Your task to perform on an android device: Open internet settings Image 0: 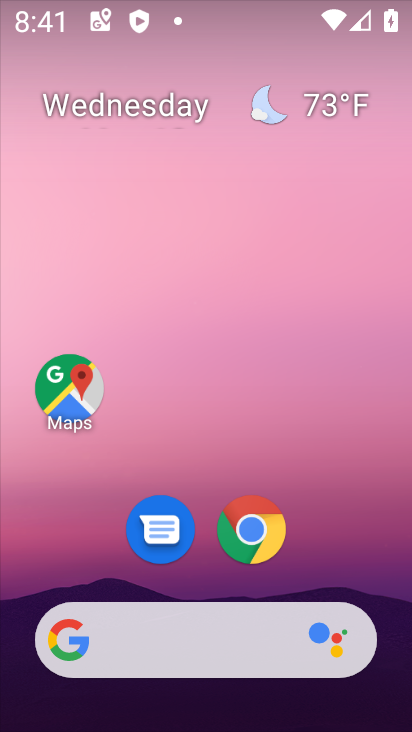
Step 0: drag from (348, 546) to (340, 178)
Your task to perform on an android device: Open internet settings Image 1: 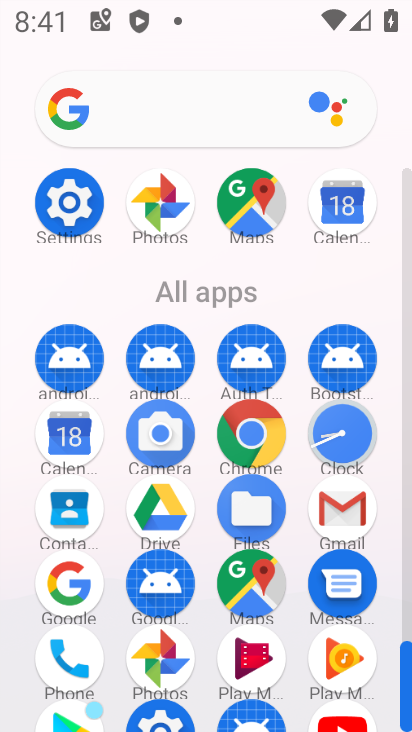
Step 1: click (75, 224)
Your task to perform on an android device: Open internet settings Image 2: 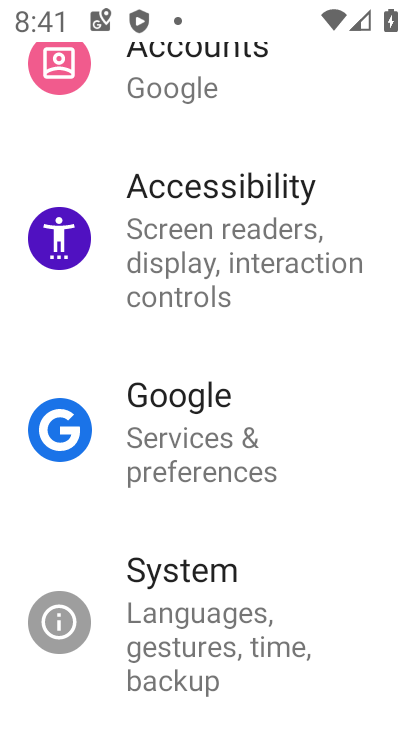
Step 2: drag from (343, 568) to (333, 431)
Your task to perform on an android device: Open internet settings Image 3: 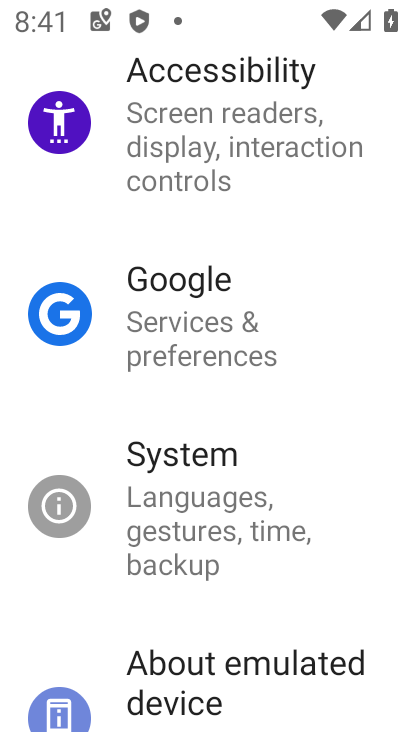
Step 3: drag from (336, 581) to (334, 433)
Your task to perform on an android device: Open internet settings Image 4: 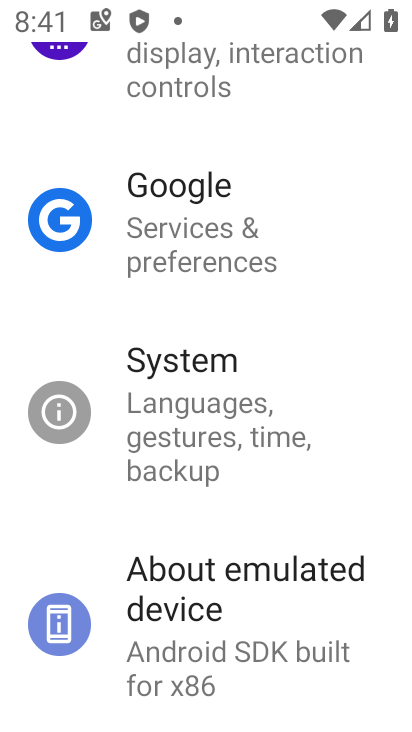
Step 4: drag from (352, 333) to (349, 465)
Your task to perform on an android device: Open internet settings Image 5: 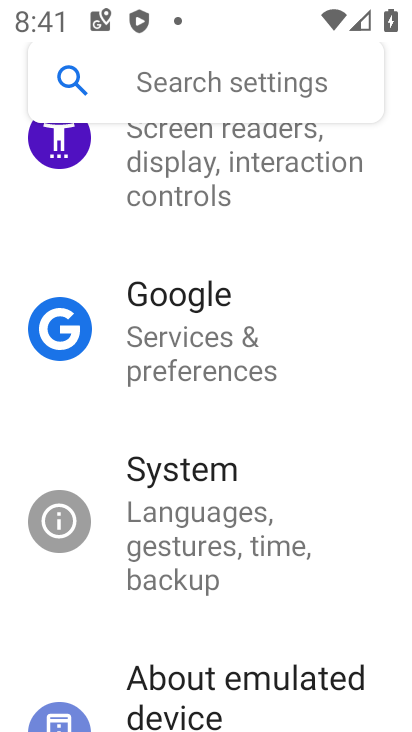
Step 5: drag from (345, 282) to (347, 397)
Your task to perform on an android device: Open internet settings Image 6: 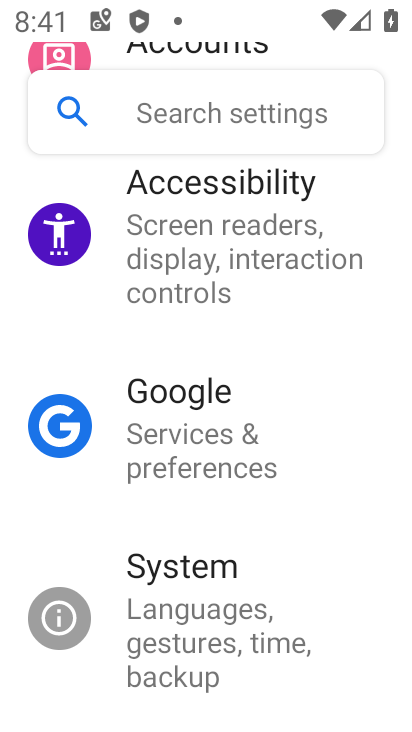
Step 6: drag from (350, 343) to (337, 449)
Your task to perform on an android device: Open internet settings Image 7: 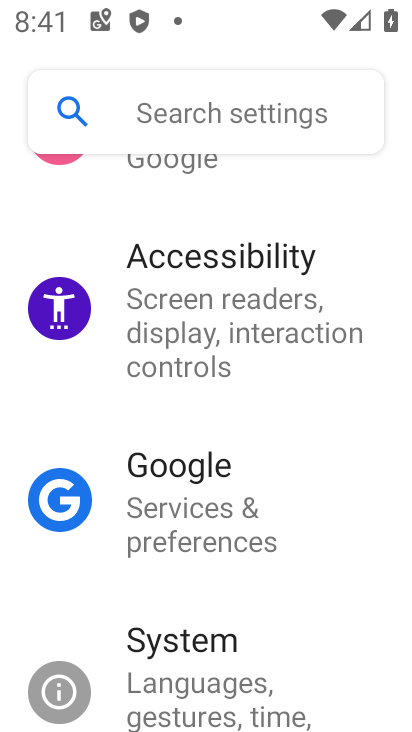
Step 7: drag from (348, 251) to (354, 387)
Your task to perform on an android device: Open internet settings Image 8: 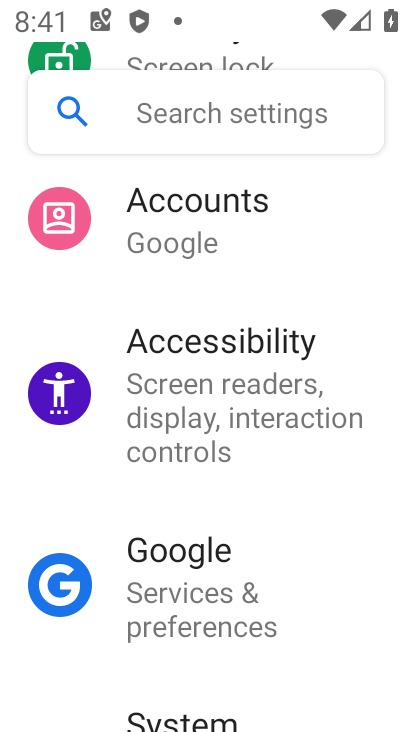
Step 8: drag from (362, 257) to (360, 384)
Your task to perform on an android device: Open internet settings Image 9: 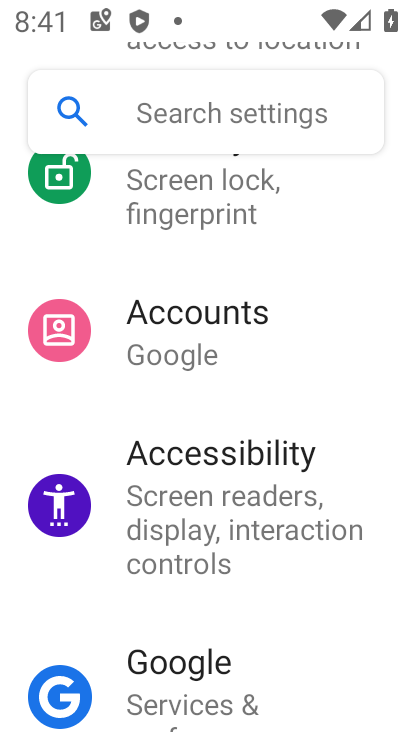
Step 9: drag from (366, 282) to (356, 444)
Your task to perform on an android device: Open internet settings Image 10: 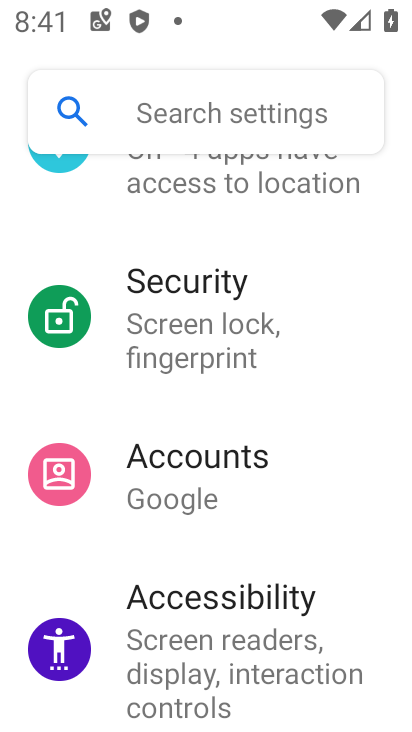
Step 10: drag from (347, 299) to (346, 381)
Your task to perform on an android device: Open internet settings Image 11: 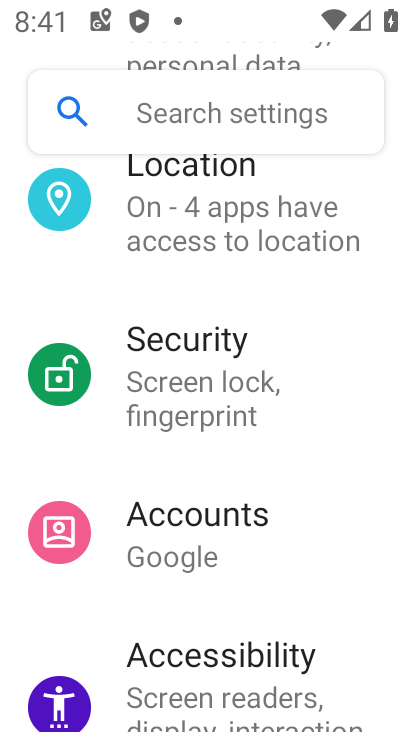
Step 11: drag from (360, 210) to (353, 385)
Your task to perform on an android device: Open internet settings Image 12: 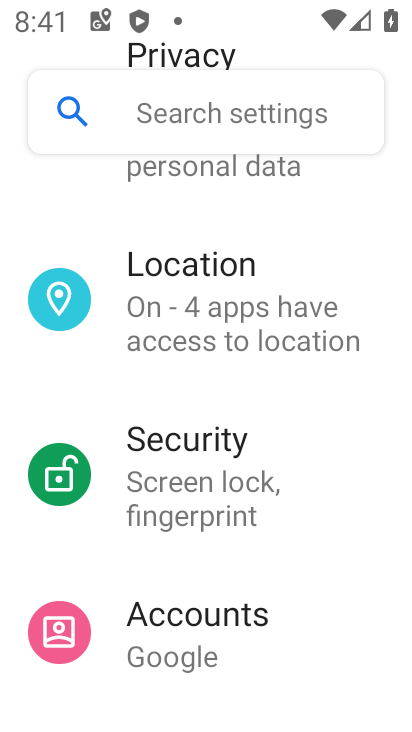
Step 12: drag from (356, 228) to (355, 375)
Your task to perform on an android device: Open internet settings Image 13: 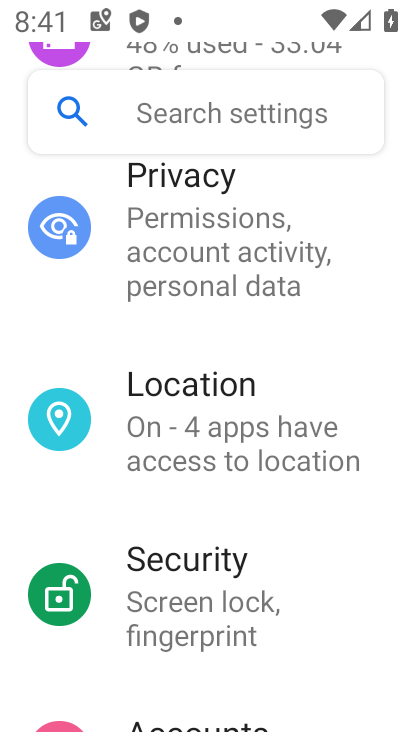
Step 13: drag from (361, 229) to (364, 368)
Your task to perform on an android device: Open internet settings Image 14: 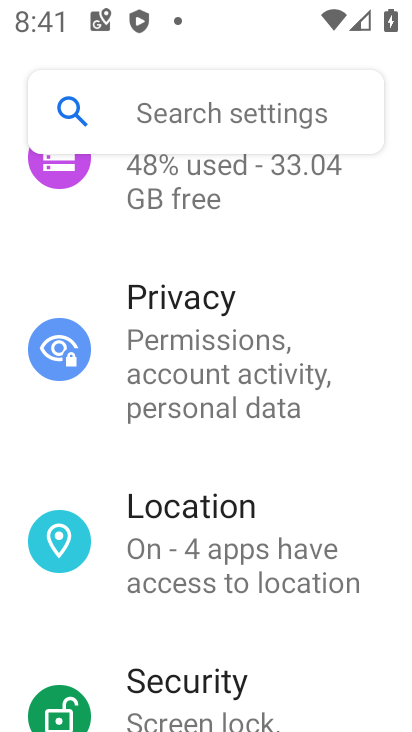
Step 14: drag from (355, 250) to (349, 357)
Your task to perform on an android device: Open internet settings Image 15: 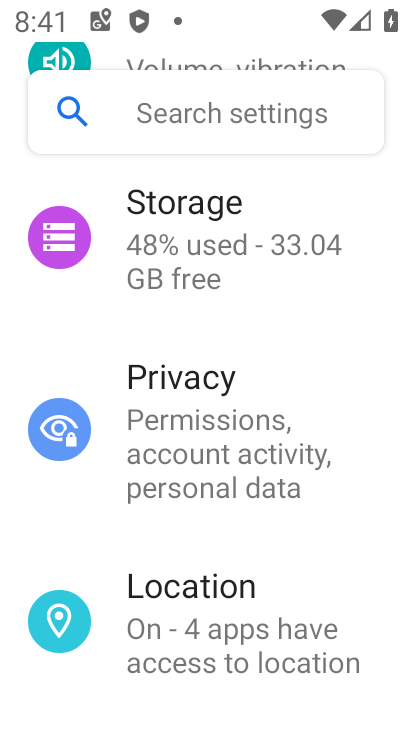
Step 15: drag from (361, 210) to (356, 316)
Your task to perform on an android device: Open internet settings Image 16: 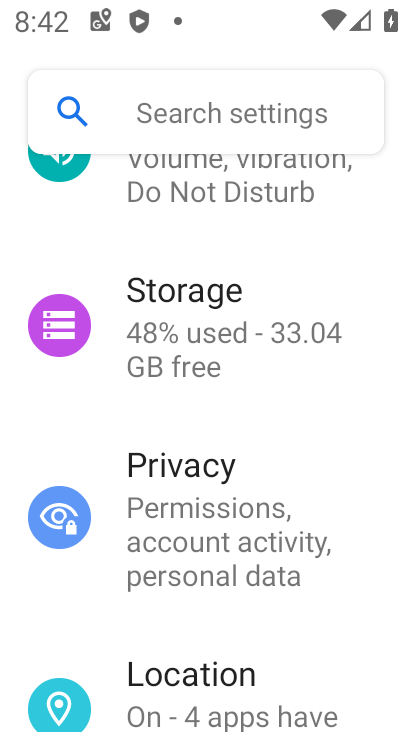
Step 16: drag from (349, 242) to (345, 366)
Your task to perform on an android device: Open internet settings Image 17: 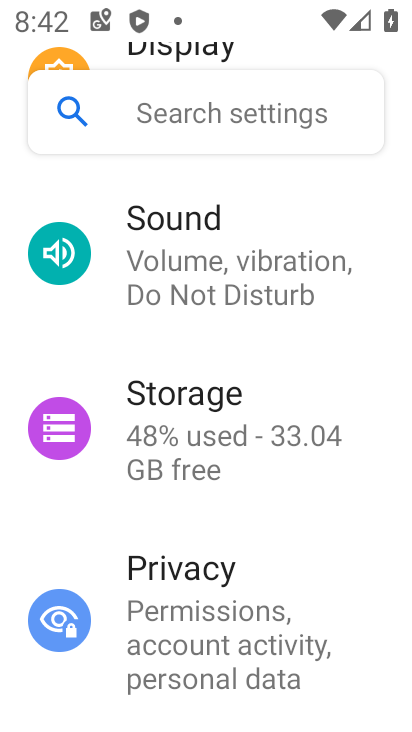
Step 17: drag from (355, 229) to (357, 310)
Your task to perform on an android device: Open internet settings Image 18: 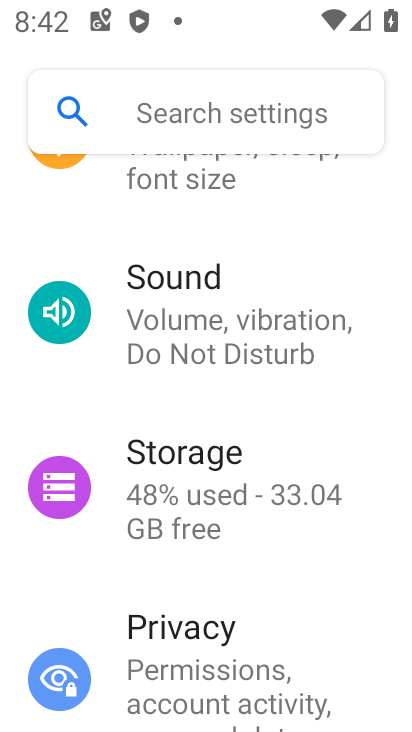
Step 18: drag from (354, 240) to (352, 301)
Your task to perform on an android device: Open internet settings Image 19: 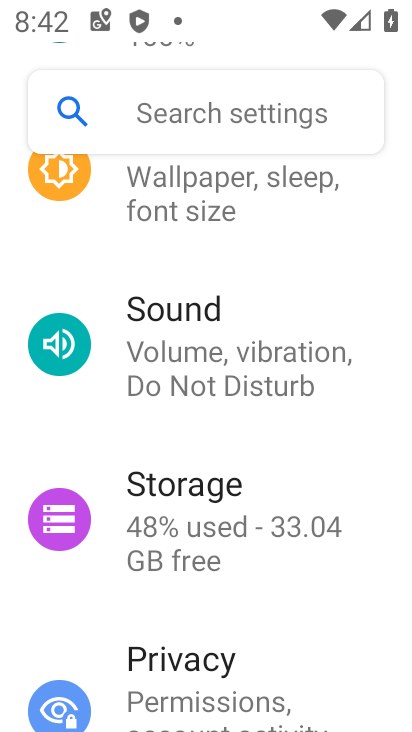
Step 19: drag from (364, 191) to (354, 295)
Your task to perform on an android device: Open internet settings Image 20: 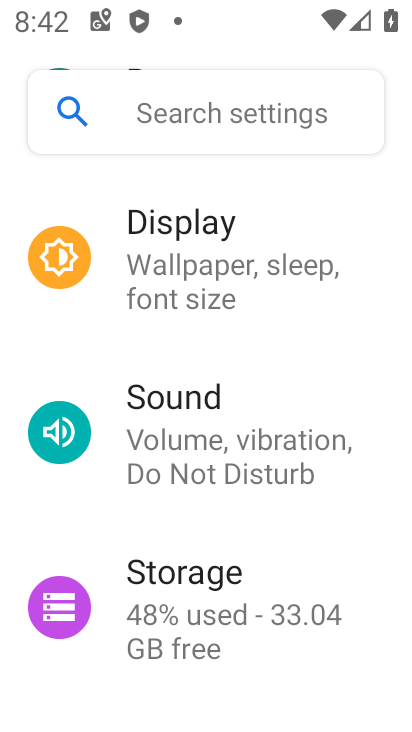
Step 20: drag from (347, 209) to (346, 333)
Your task to perform on an android device: Open internet settings Image 21: 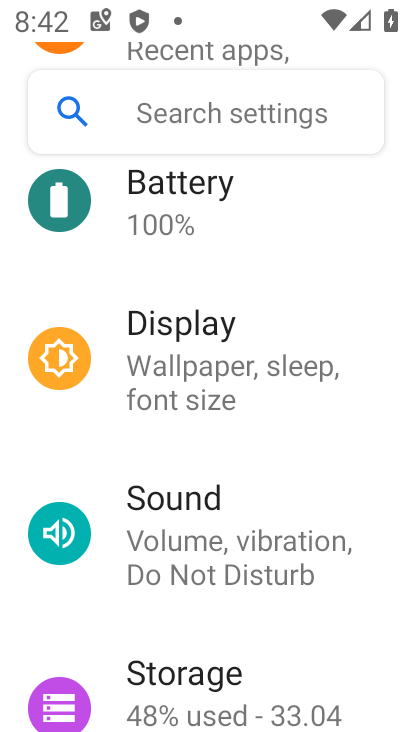
Step 21: drag from (352, 182) to (356, 325)
Your task to perform on an android device: Open internet settings Image 22: 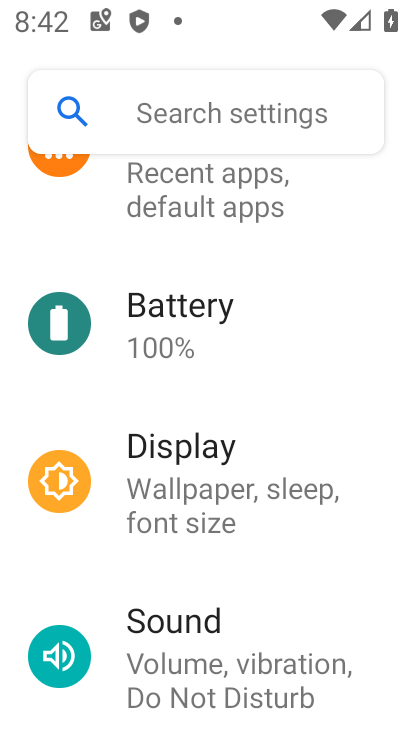
Step 22: drag from (365, 193) to (363, 317)
Your task to perform on an android device: Open internet settings Image 23: 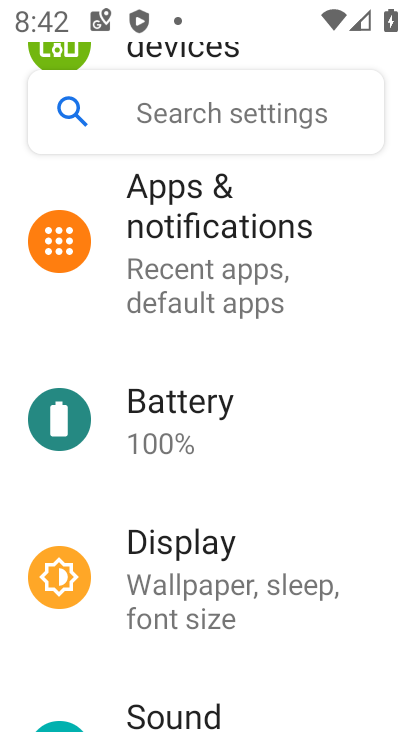
Step 23: drag from (347, 211) to (354, 319)
Your task to perform on an android device: Open internet settings Image 24: 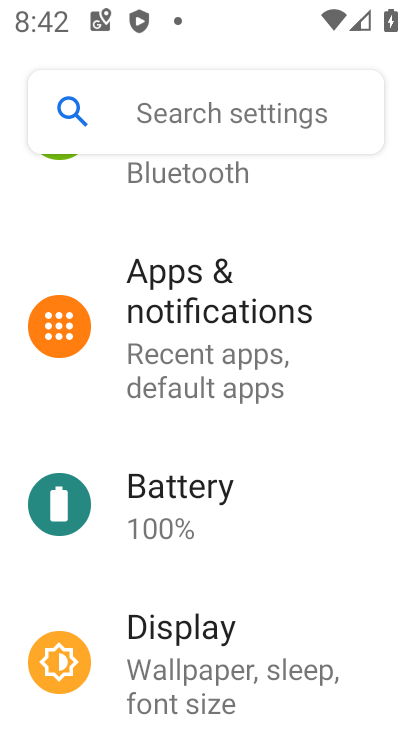
Step 24: drag from (346, 226) to (346, 324)
Your task to perform on an android device: Open internet settings Image 25: 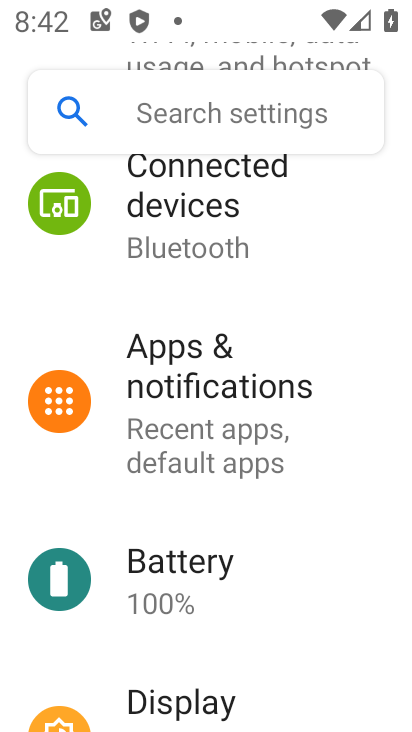
Step 25: drag from (330, 217) to (344, 370)
Your task to perform on an android device: Open internet settings Image 26: 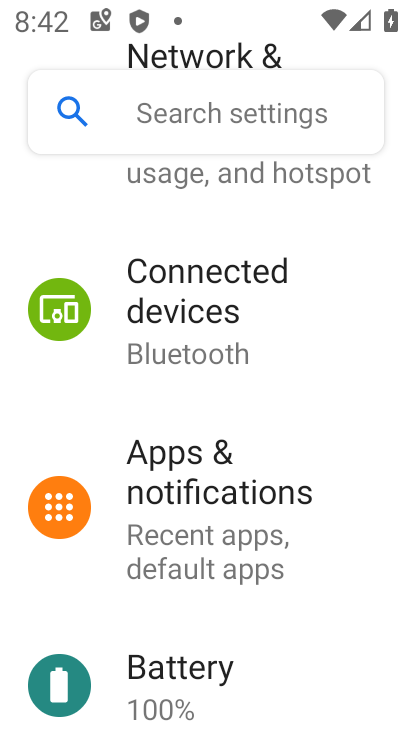
Step 26: drag from (356, 248) to (351, 366)
Your task to perform on an android device: Open internet settings Image 27: 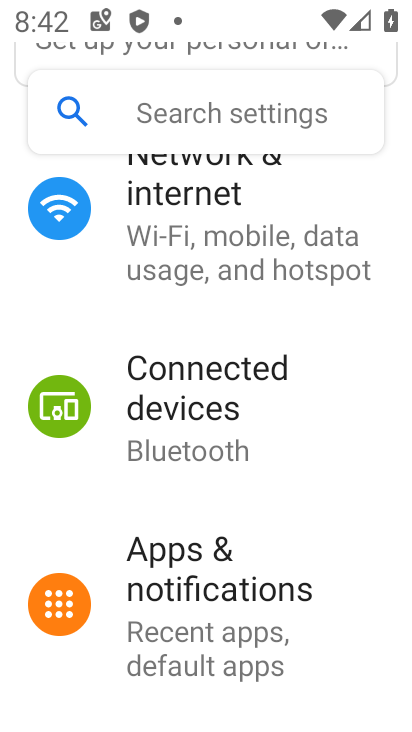
Step 27: click (294, 245)
Your task to perform on an android device: Open internet settings Image 28: 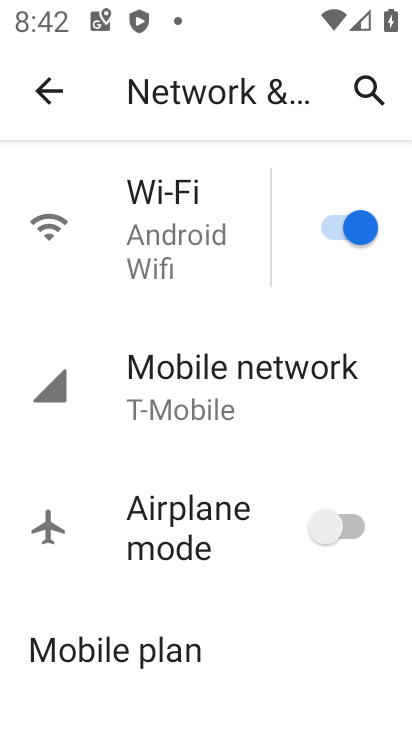
Step 28: task complete